Your task to perform on an android device: Go to Android settings Image 0: 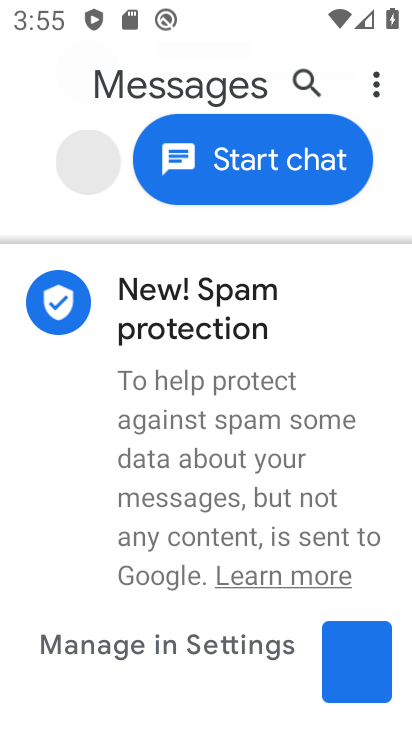
Step 0: press home button
Your task to perform on an android device: Go to Android settings Image 1: 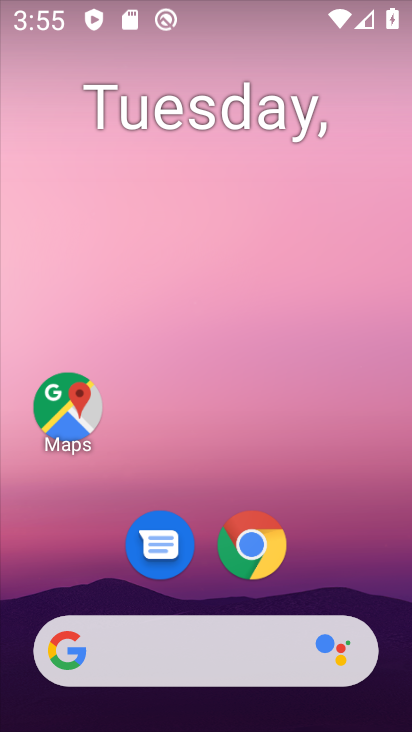
Step 1: drag from (210, 592) to (335, 7)
Your task to perform on an android device: Go to Android settings Image 2: 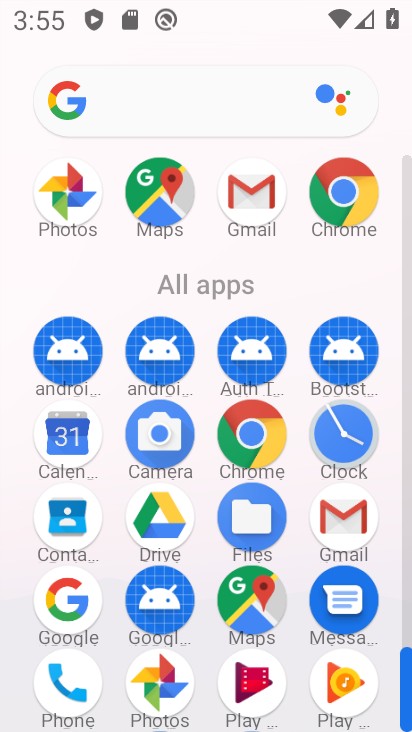
Step 2: drag from (220, 483) to (233, 195)
Your task to perform on an android device: Go to Android settings Image 3: 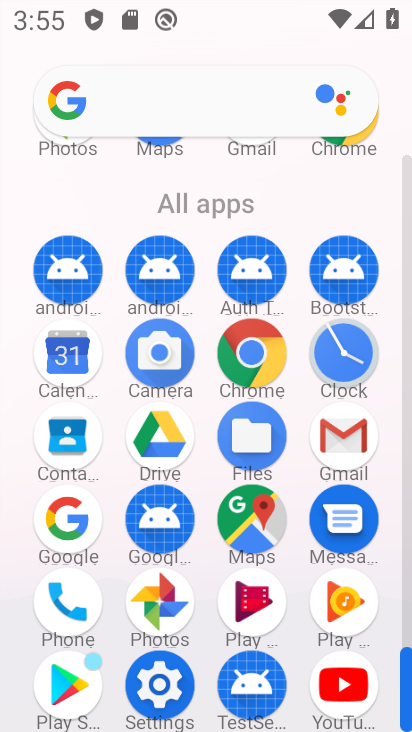
Step 3: click (159, 675)
Your task to perform on an android device: Go to Android settings Image 4: 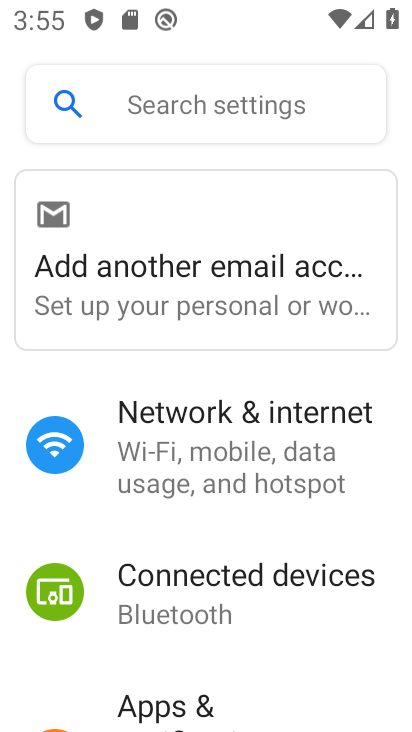
Step 4: drag from (229, 535) to (249, 144)
Your task to perform on an android device: Go to Android settings Image 5: 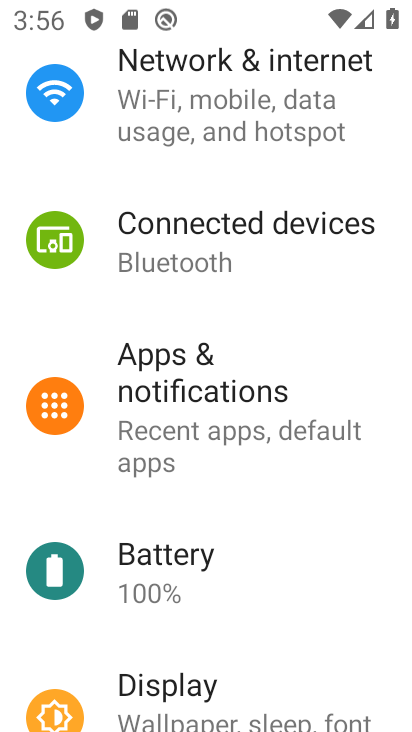
Step 5: drag from (209, 548) to (267, 273)
Your task to perform on an android device: Go to Android settings Image 6: 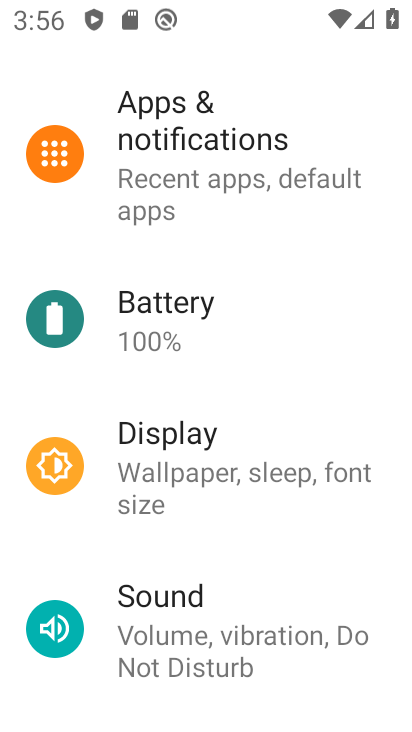
Step 6: drag from (245, 590) to (327, 133)
Your task to perform on an android device: Go to Android settings Image 7: 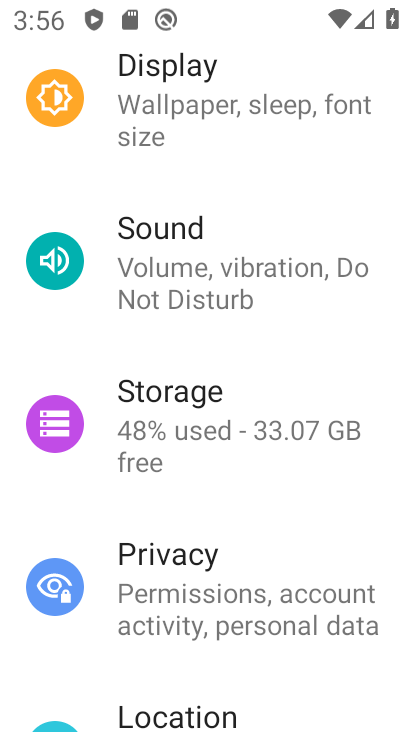
Step 7: drag from (265, 476) to (335, 111)
Your task to perform on an android device: Go to Android settings Image 8: 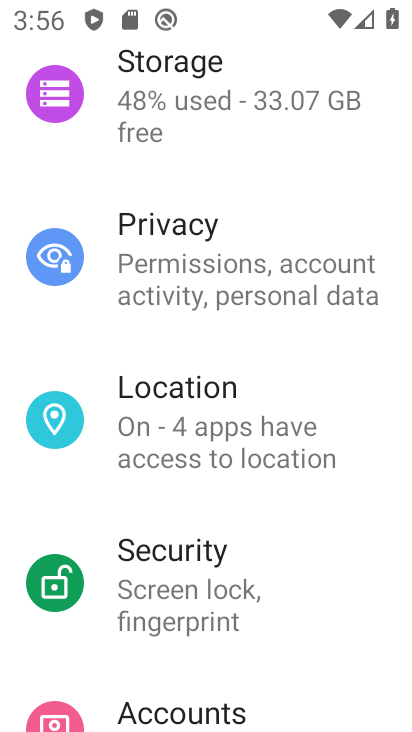
Step 8: drag from (274, 558) to (358, 229)
Your task to perform on an android device: Go to Android settings Image 9: 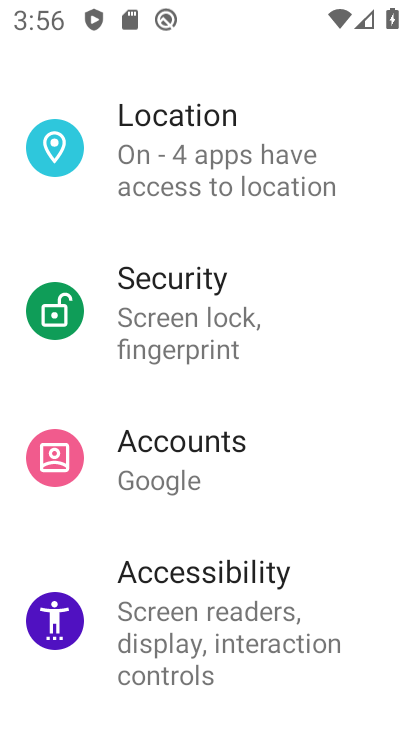
Step 9: drag from (236, 520) to (299, 160)
Your task to perform on an android device: Go to Android settings Image 10: 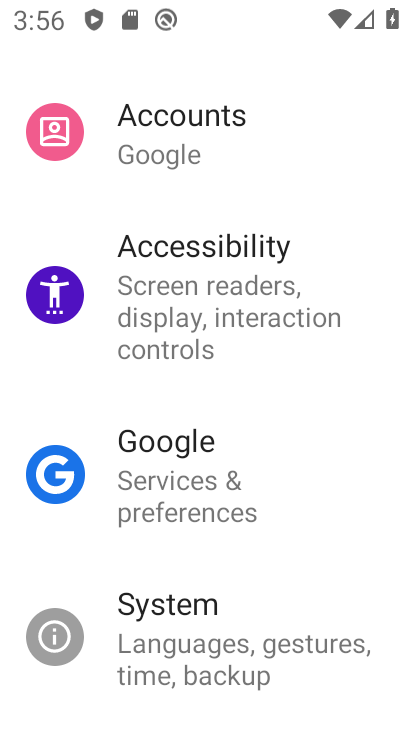
Step 10: drag from (277, 536) to (331, 267)
Your task to perform on an android device: Go to Android settings Image 11: 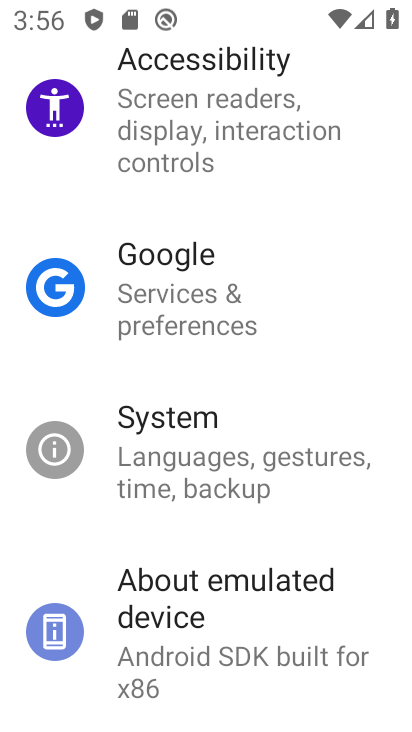
Step 11: click (234, 621)
Your task to perform on an android device: Go to Android settings Image 12: 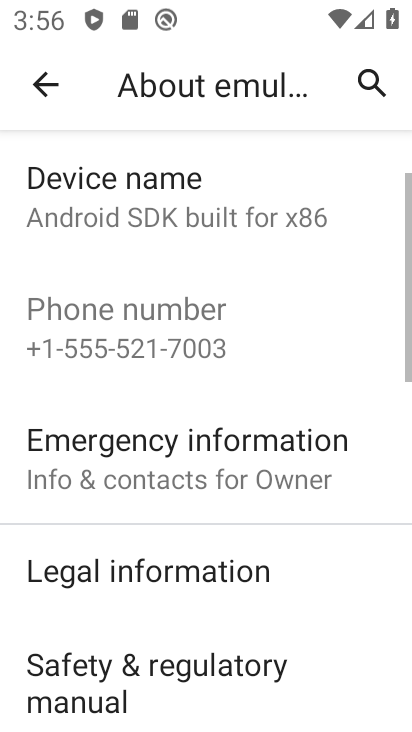
Step 12: task complete